Your task to perform on an android device: Show me the alarms in the clock app Image 0: 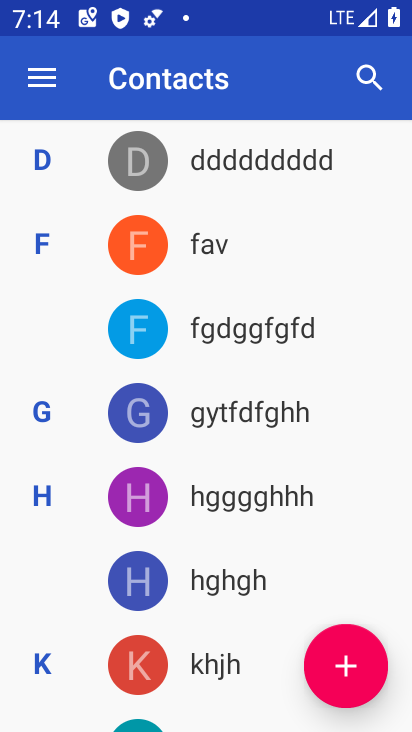
Step 0: press back button
Your task to perform on an android device: Show me the alarms in the clock app Image 1: 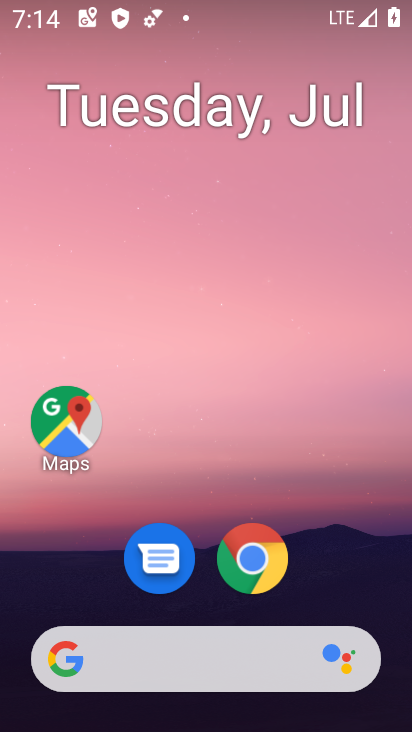
Step 1: drag from (189, 593) to (241, 25)
Your task to perform on an android device: Show me the alarms in the clock app Image 2: 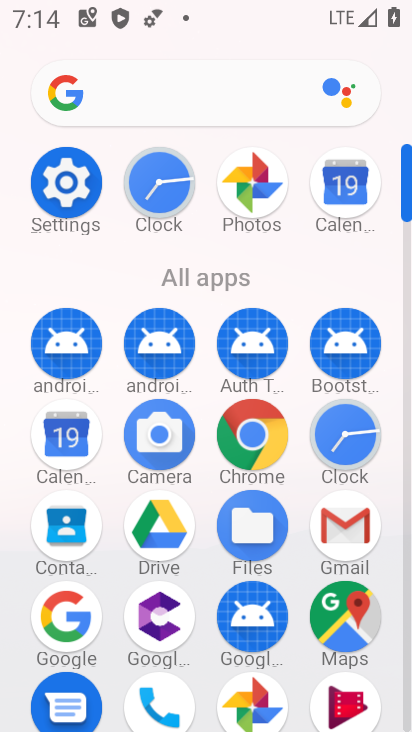
Step 2: click (332, 427)
Your task to perform on an android device: Show me the alarms in the clock app Image 3: 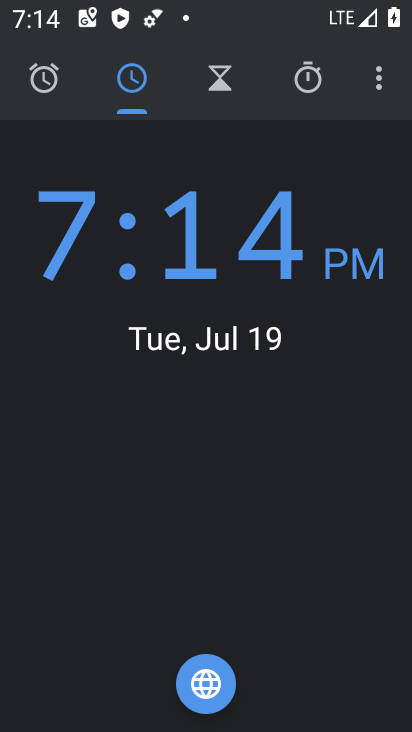
Step 3: click (39, 62)
Your task to perform on an android device: Show me the alarms in the clock app Image 4: 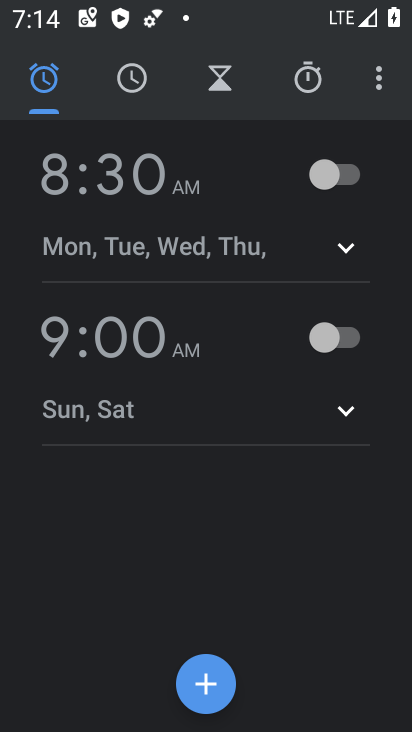
Step 4: task complete